Your task to perform on an android device: Is it going to rain tomorrow? Image 0: 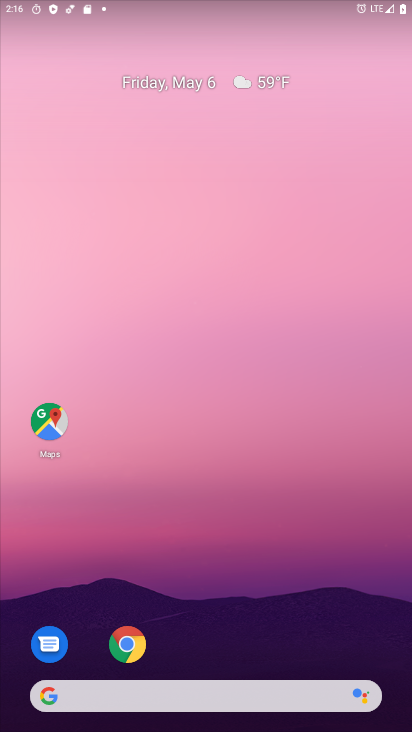
Step 0: drag from (244, 641) to (232, 190)
Your task to perform on an android device: Is it going to rain tomorrow? Image 1: 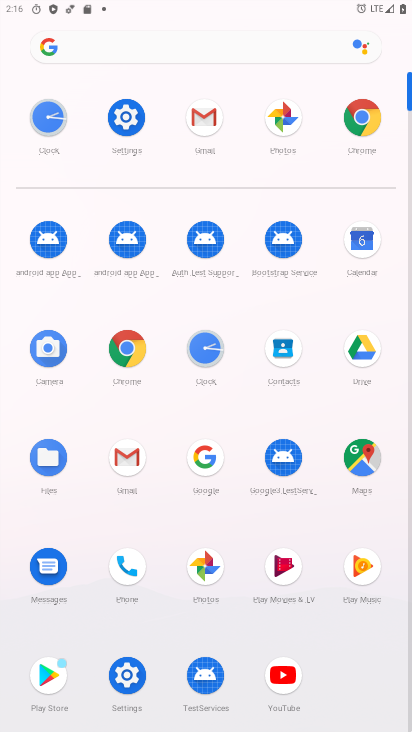
Step 1: click (359, 126)
Your task to perform on an android device: Is it going to rain tomorrow? Image 2: 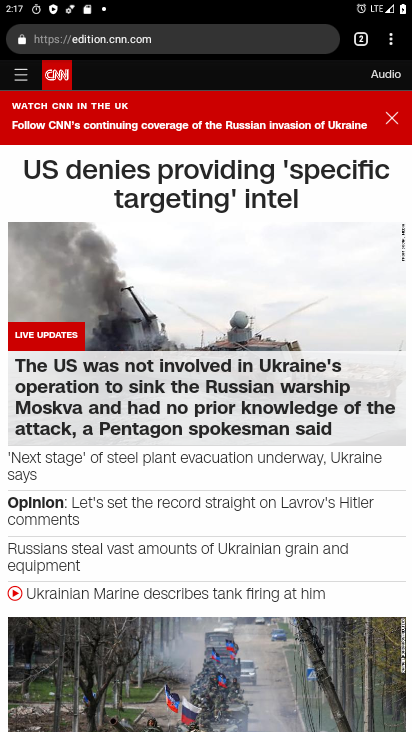
Step 2: click (158, 39)
Your task to perform on an android device: Is it going to rain tomorrow? Image 3: 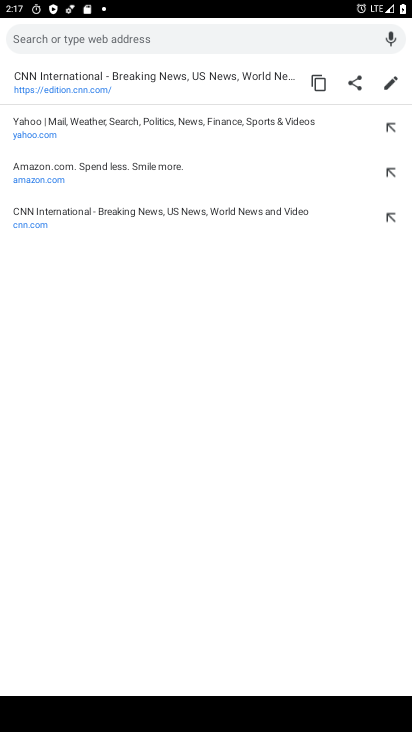
Step 3: type "Is it going to rain tomorrow?"
Your task to perform on an android device: Is it going to rain tomorrow? Image 4: 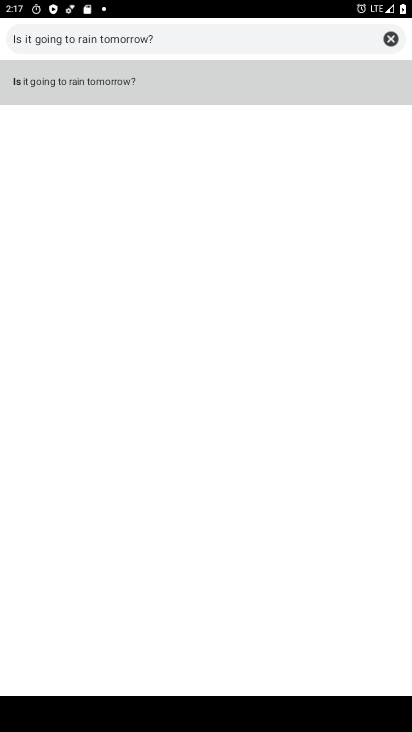
Step 4: click (99, 85)
Your task to perform on an android device: Is it going to rain tomorrow? Image 5: 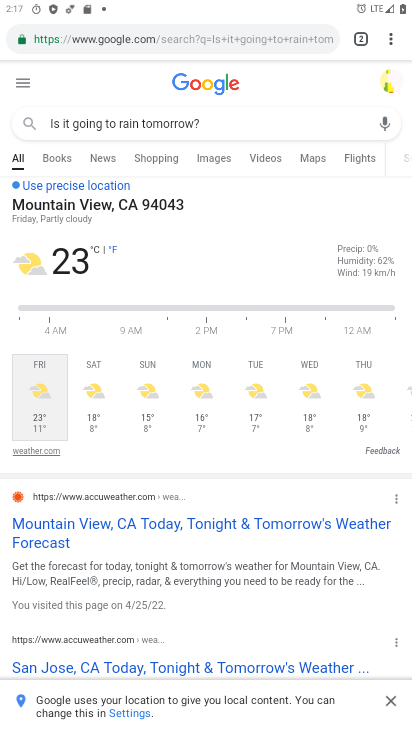
Step 5: click (85, 375)
Your task to perform on an android device: Is it going to rain tomorrow? Image 6: 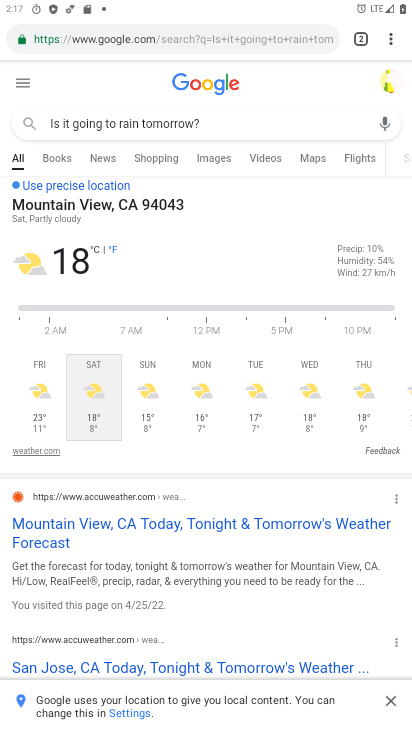
Step 6: task complete